Your task to perform on an android device: change your default location settings in chrome Image 0: 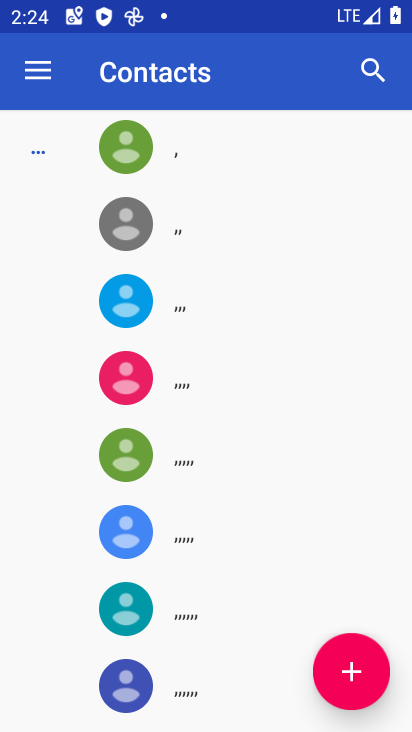
Step 0: press home button
Your task to perform on an android device: change your default location settings in chrome Image 1: 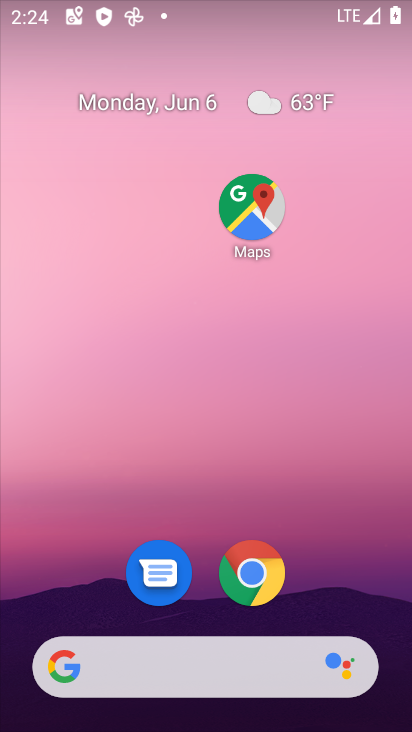
Step 1: drag from (195, 477) to (217, 0)
Your task to perform on an android device: change your default location settings in chrome Image 2: 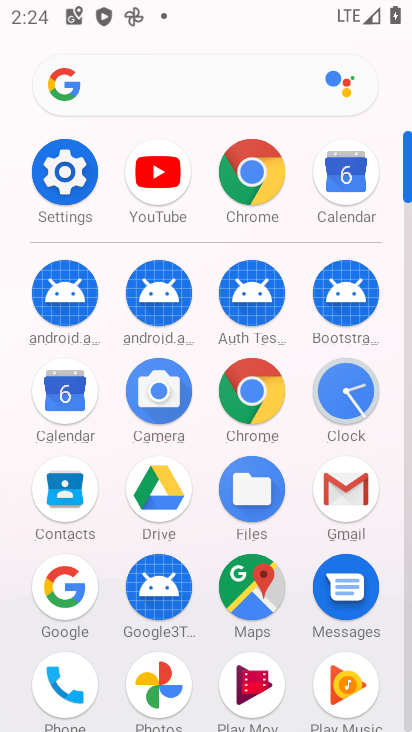
Step 2: click (251, 405)
Your task to perform on an android device: change your default location settings in chrome Image 3: 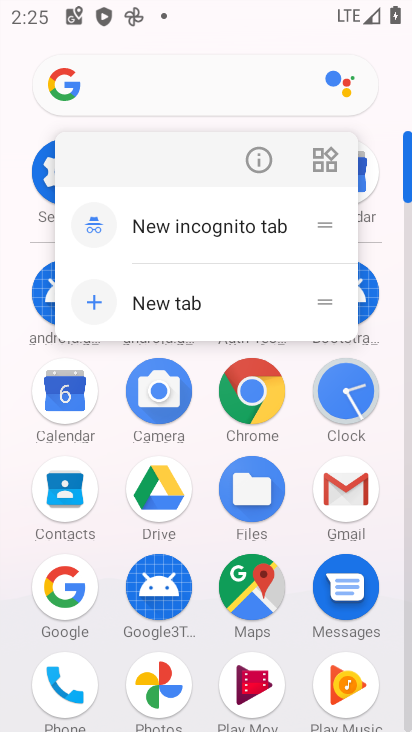
Step 3: click (256, 401)
Your task to perform on an android device: change your default location settings in chrome Image 4: 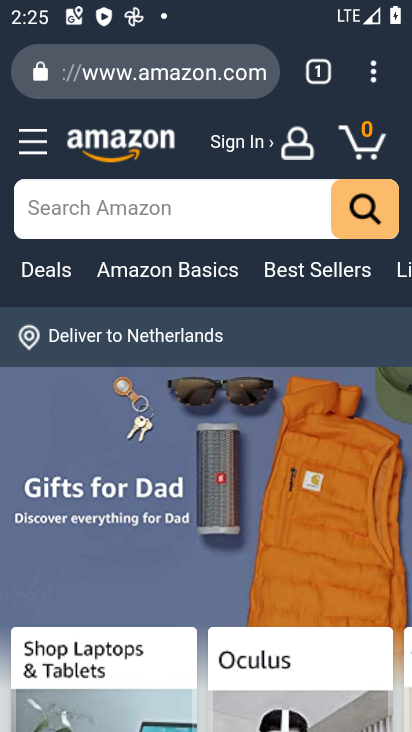
Step 4: click (363, 78)
Your task to perform on an android device: change your default location settings in chrome Image 5: 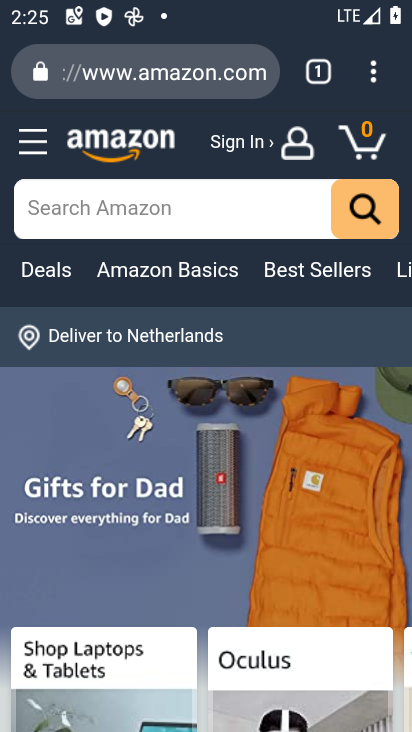
Step 5: click (371, 73)
Your task to perform on an android device: change your default location settings in chrome Image 6: 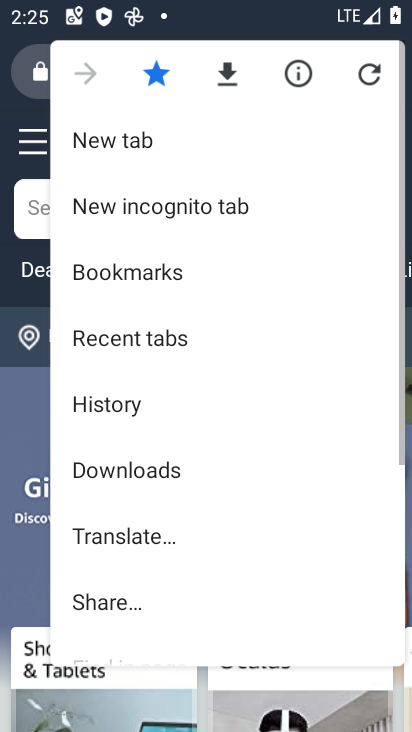
Step 6: drag from (173, 505) to (219, 120)
Your task to perform on an android device: change your default location settings in chrome Image 7: 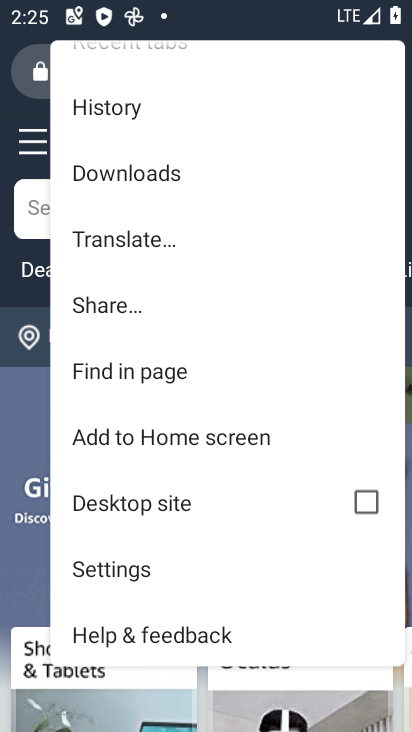
Step 7: click (128, 569)
Your task to perform on an android device: change your default location settings in chrome Image 8: 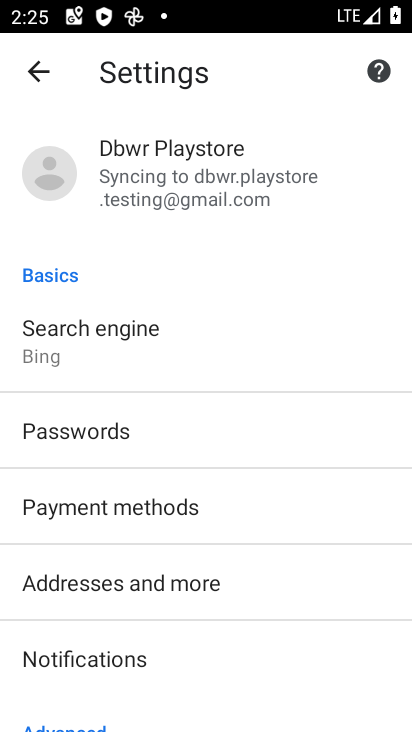
Step 8: drag from (250, 673) to (247, 191)
Your task to perform on an android device: change your default location settings in chrome Image 9: 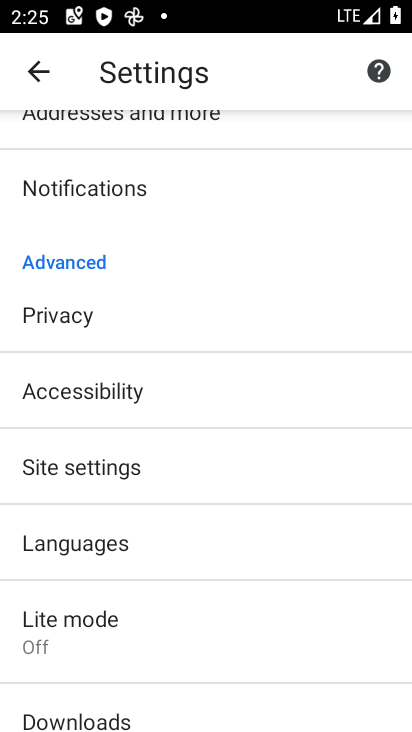
Step 9: click (124, 473)
Your task to perform on an android device: change your default location settings in chrome Image 10: 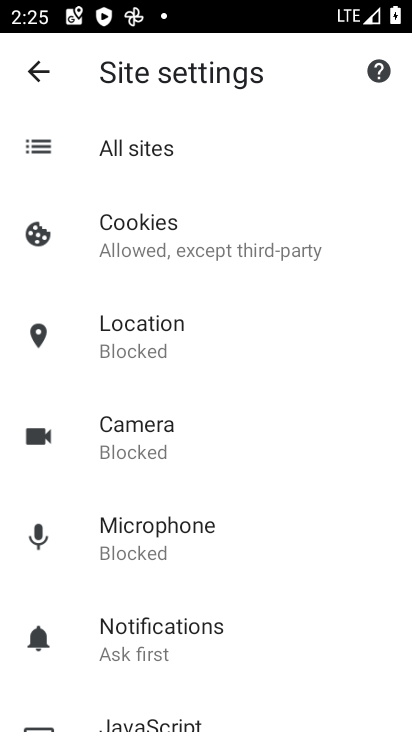
Step 10: click (224, 353)
Your task to perform on an android device: change your default location settings in chrome Image 11: 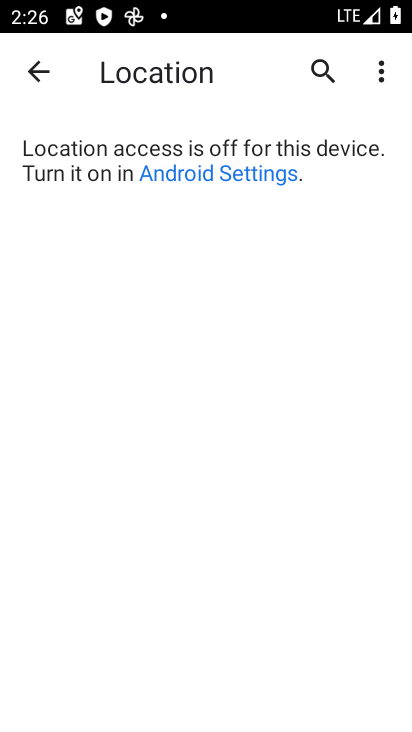
Step 11: click (271, 180)
Your task to perform on an android device: change your default location settings in chrome Image 12: 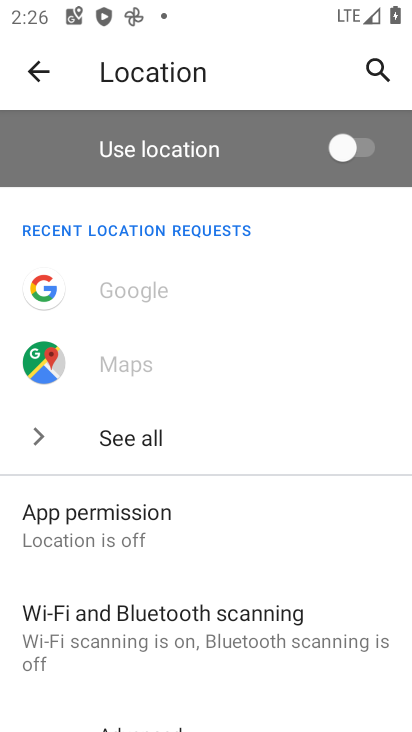
Step 12: click (340, 169)
Your task to perform on an android device: change your default location settings in chrome Image 13: 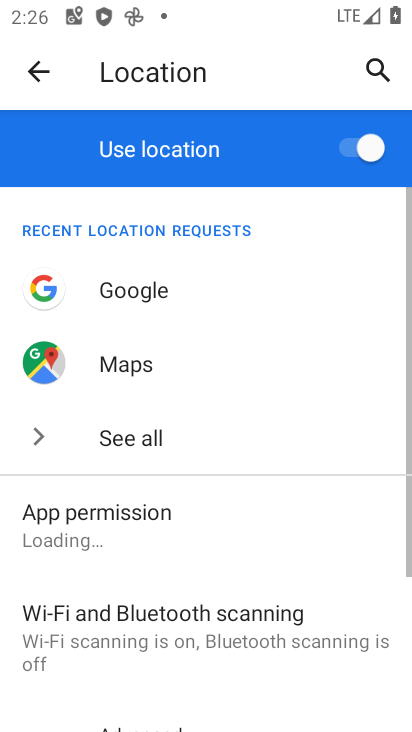
Step 13: task complete